Your task to perform on an android device: Is it going to rain today? Image 0: 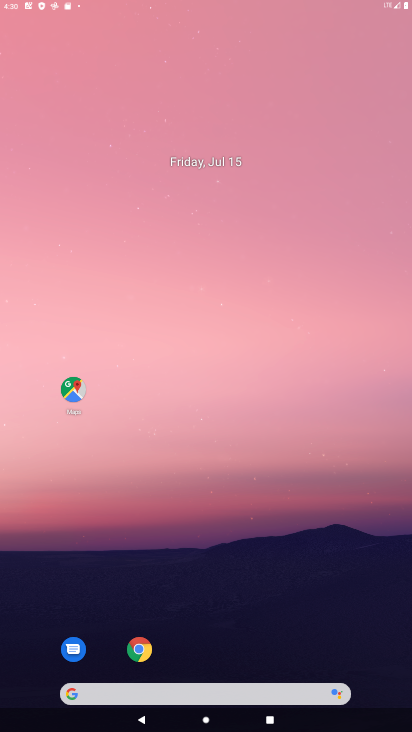
Step 0: drag from (282, 519) to (277, 143)
Your task to perform on an android device: Is it going to rain today? Image 1: 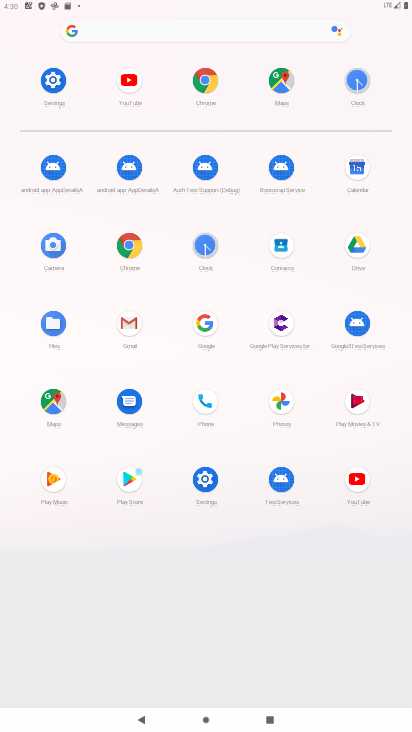
Step 1: click (205, 85)
Your task to perform on an android device: Is it going to rain today? Image 2: 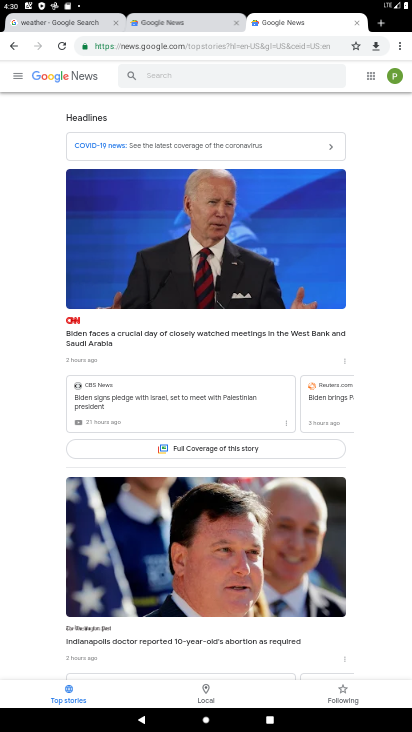
Step 2: click (228, 45)
Your task to perform on an android device: Is it going to rain today? Image 3: 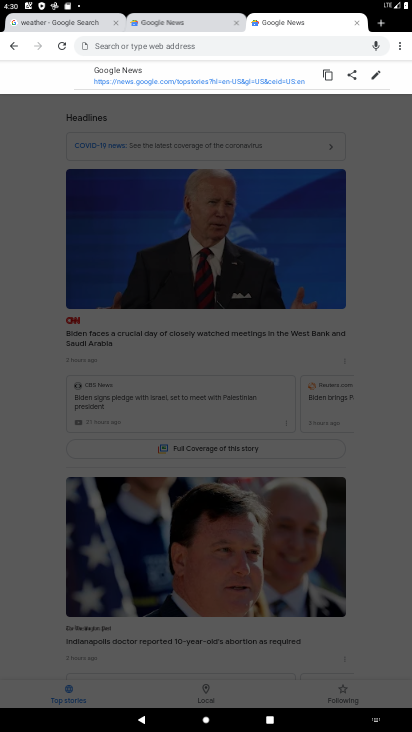
Step 3: type "weather"
Your task to perform on an android device: Is it going to rain today? Image 4: 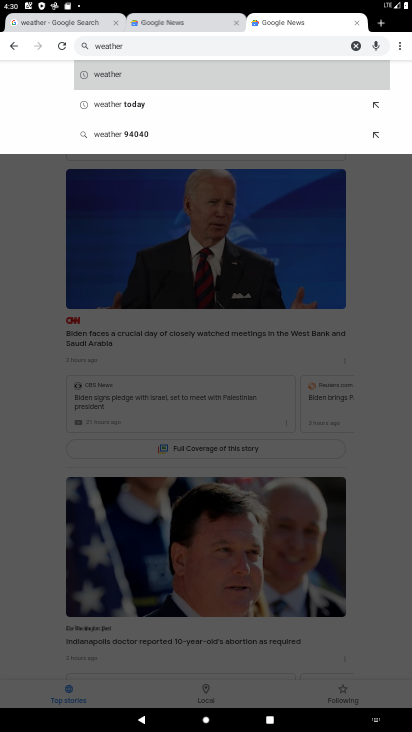
Step 4: click (102, 80)
Your task to perform on an android device: Is it going to rain today? Image 5: 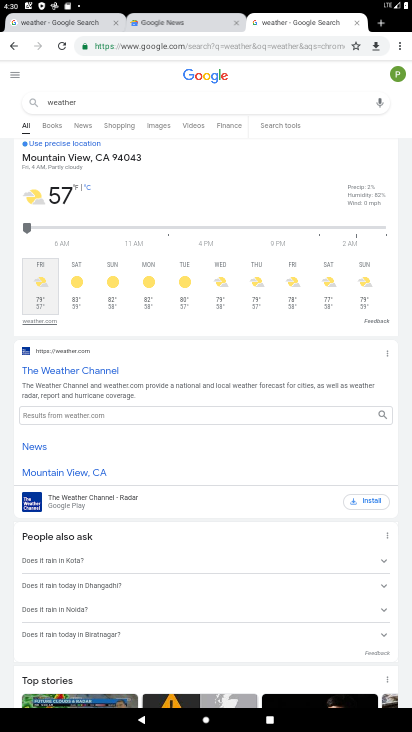
Step 5: task complete